Your task to perform on an android device: Open Chrome and go to settings Image 0: 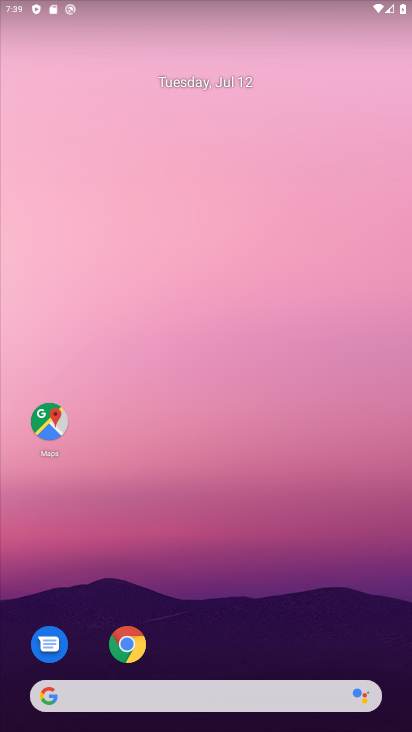
Step 0: drag from (203, 576) to (258, 53)
Your task to perform on an android device: Open Chrome and go to settings Image 1: 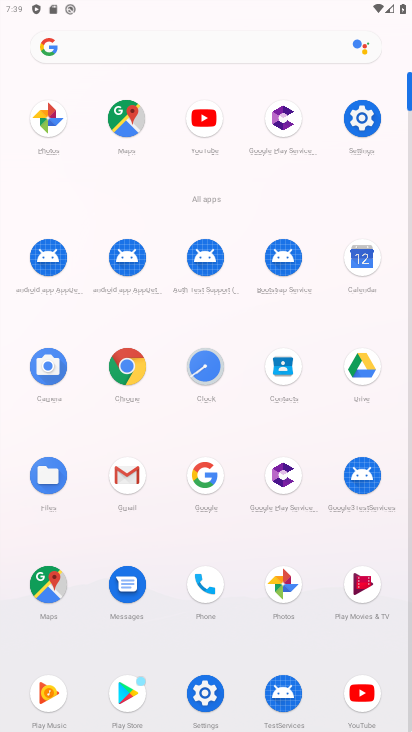
Step 1: click (122, 374)
Your task to perform on an android device: Open Chrome and go to settings Image 2: 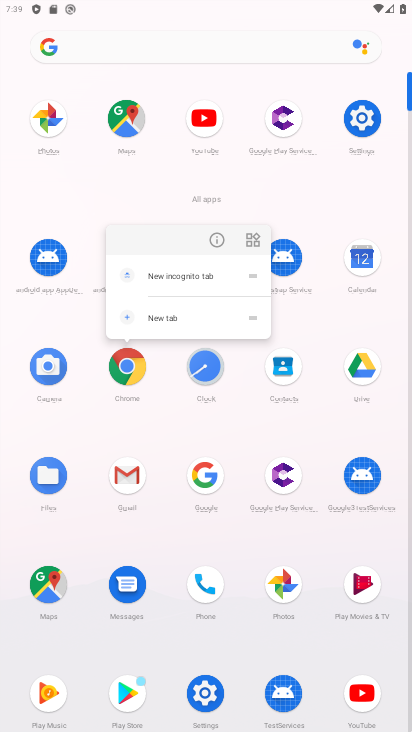
Step 2: click (219, 236)
Your task to perform on an android device: Open Chrome and go to settings Image 3: 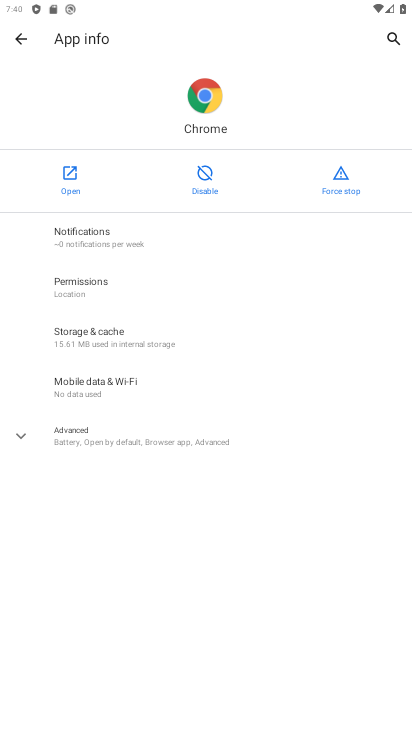
Step 3: click (68, 190)
Your task to perform on an android device: Open Chrome and go to settings Image 4: 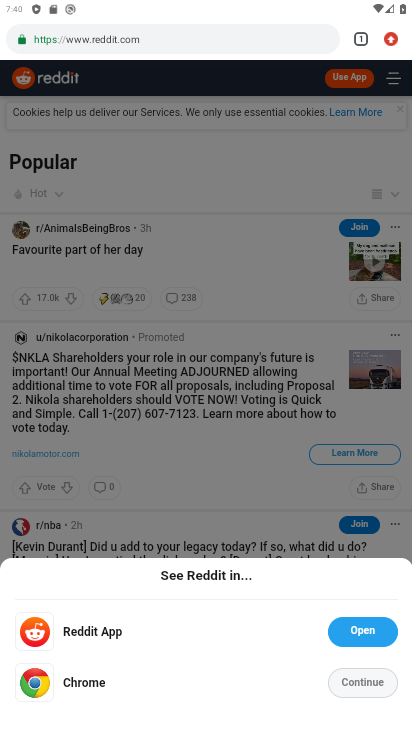
Step 4: click (393, 43)
Your task to perform on an android device: Open Chrome and go to settings Image 5: 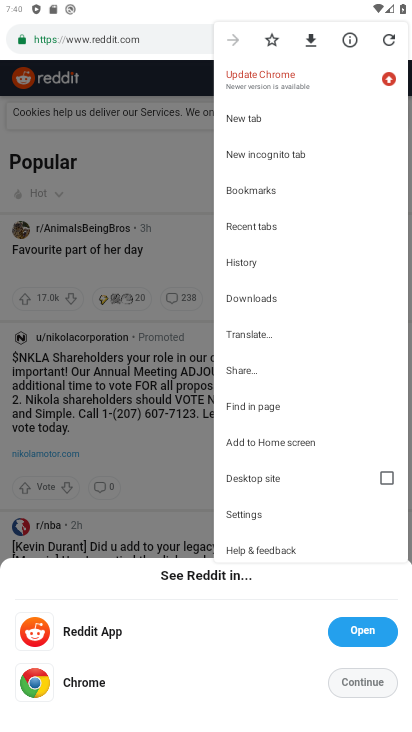
Step 5: click (266, 511)
Your task to perform on an android device: Open Chrome and go to settings Image 6: 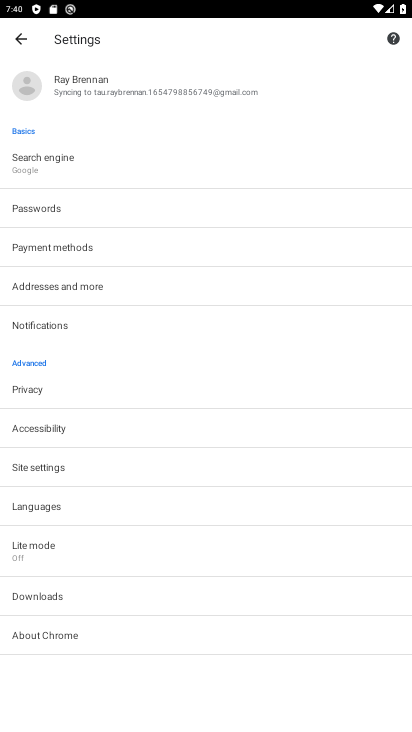
Step 6: task complete